Your task to perform on an android device: clear all cookies in the chrome app Image 0: 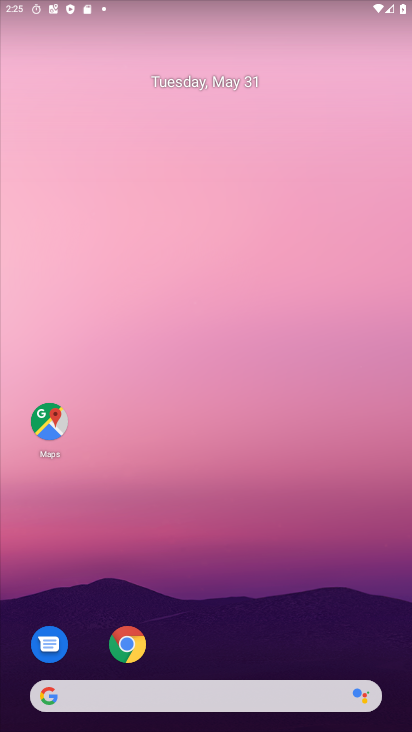
Step 0: click (131, 643)
Your task to perform on an android device: clear all cookies in the chrome app Image 1: 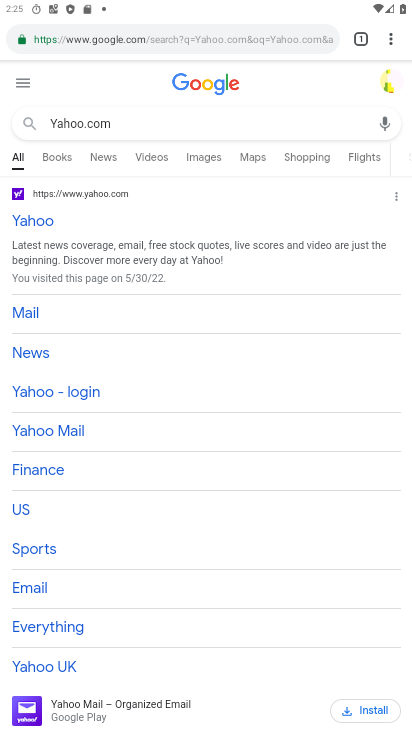
Step 1: click (389, 42)
Your task to perform on an android device: clear all cookies in the chrome app Image 2: 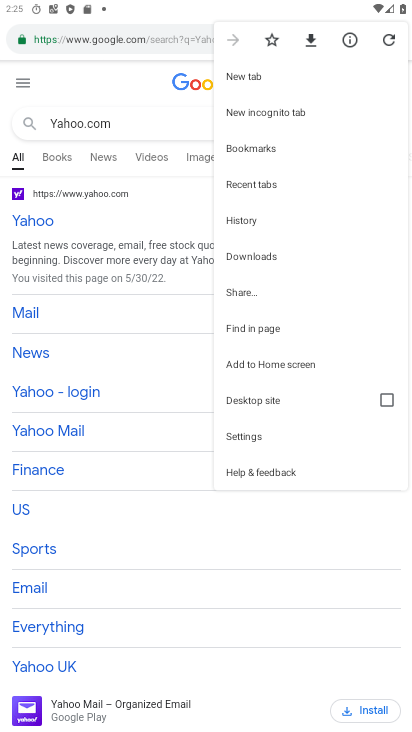
Step 2: click (259, 221)
Your task to perform on an android device: clear all cookies in the chrome app Image 3: 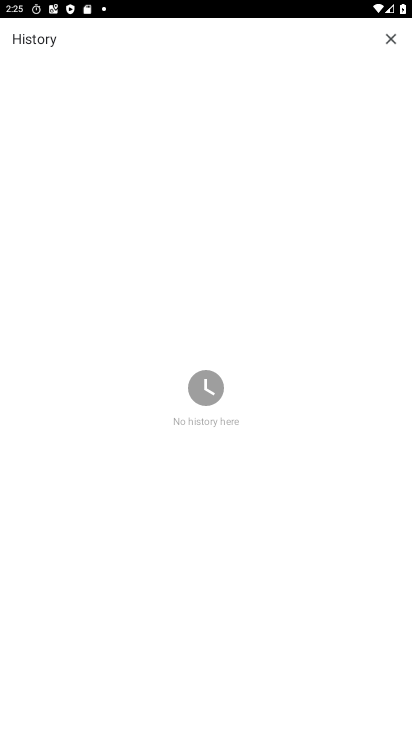
Step 3: task complete